Your task to perform on an android device: toggle improve location accuracy Image 0: 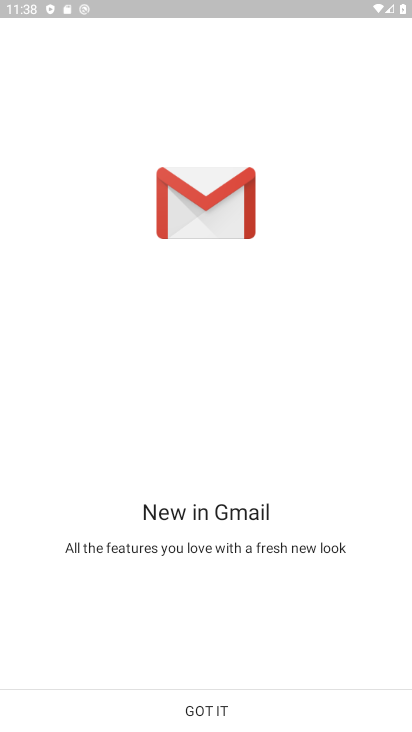
Step 0: click (235, 709)
Your task to perform on an android device: toggle improve location accuracy Image 1: 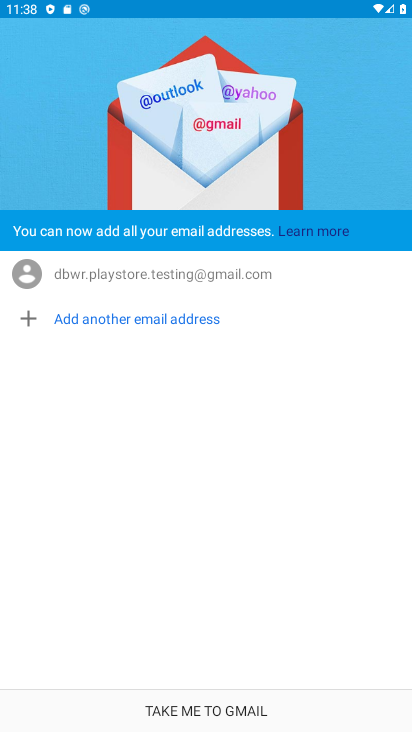
Step 1: press home button
Your task to perform on an android device: toggle improve location accuracy Image 2: 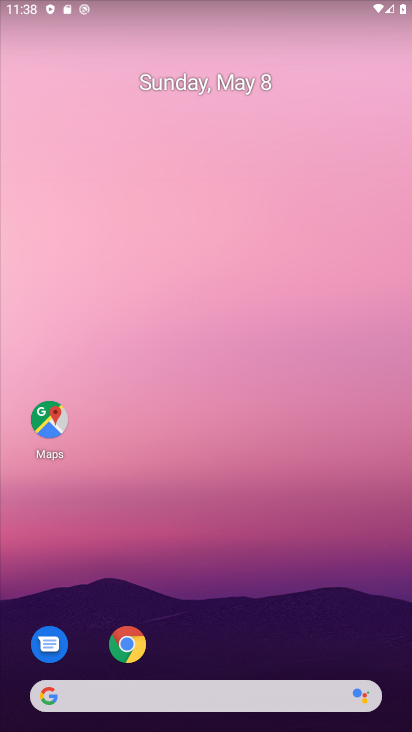
Step 2: drag from (279, 565) to (231, 38)
Your task to perform on an android device: toggle improve location accuracy Image 3: 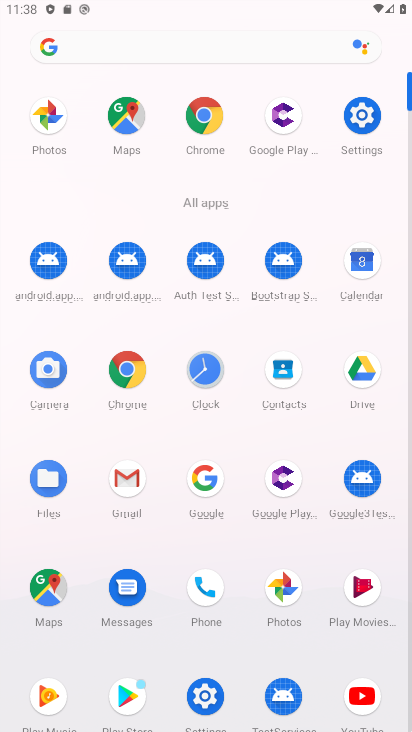
Step 3: click (208, 703)
Your task to perform on an android device: toggle improve location accuracy Image 4: 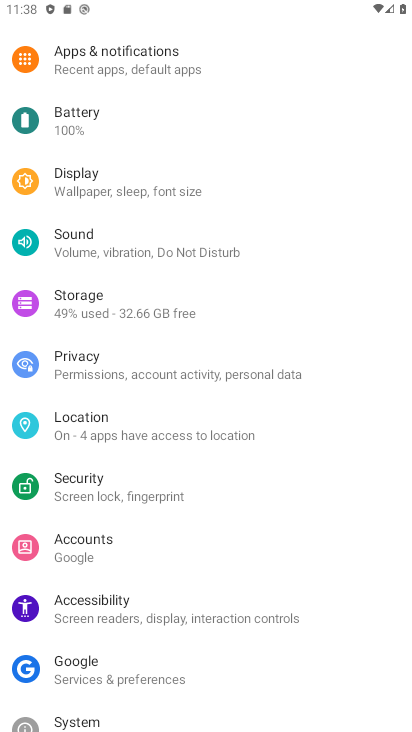
Step 4: click (104, 414)
Your task to perform on an android device: toggle improve location accuracy Image 5: 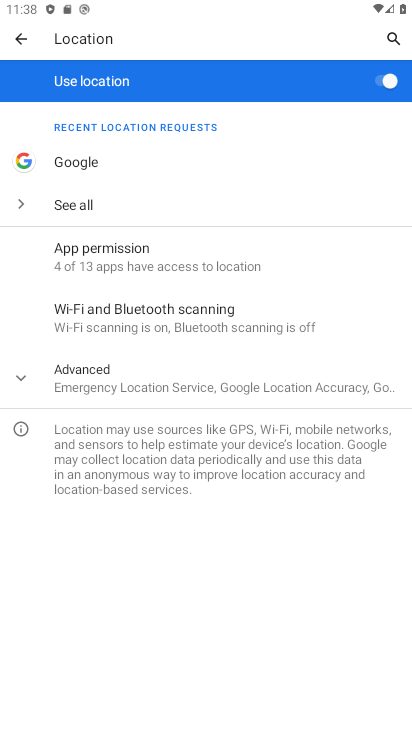
Step 5: click (171, 384)
Your task to perform on an android device: toggle improve location accuracy Image 6: 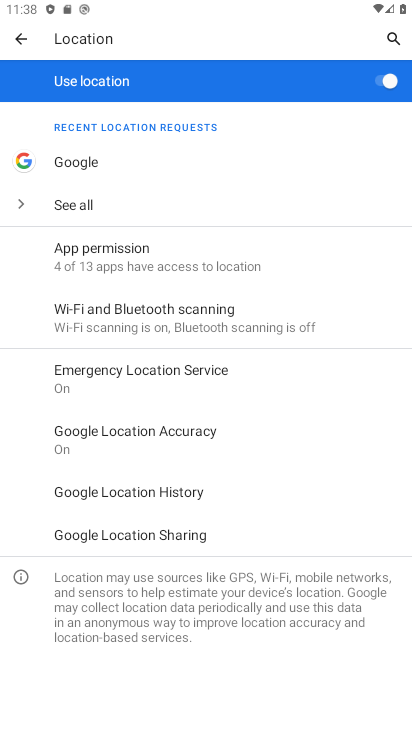
Step 6: click (158, 433)
Your task to perform on an android device: toggle improve location accuracy Image 7: 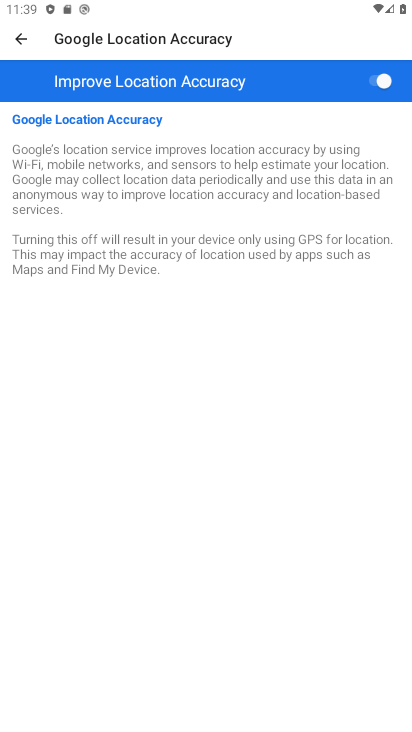
Step 7: click (384, 69)
Your task to perform on an android device: toggle improve location accuracy Image 8: 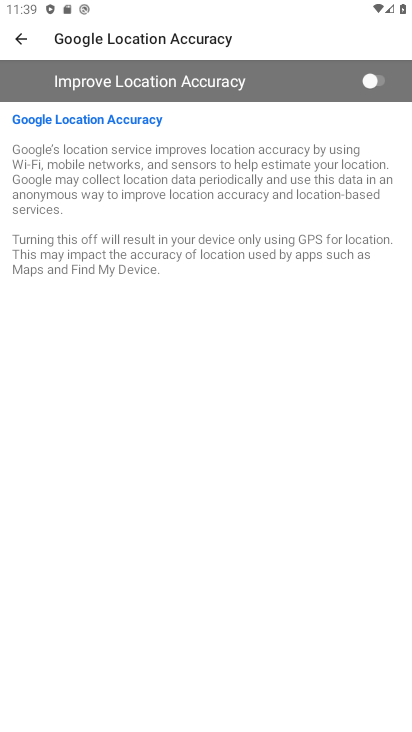
Step 8: task complete